Your task to perform on an android device: allow cookies in the chrome app Image 0: 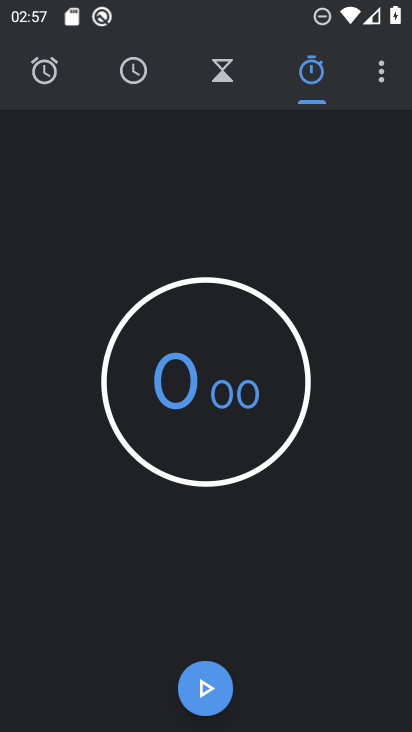
Step 0: press home button
Your task to perform on an android device: allow cookies in the chrome app Image 1: 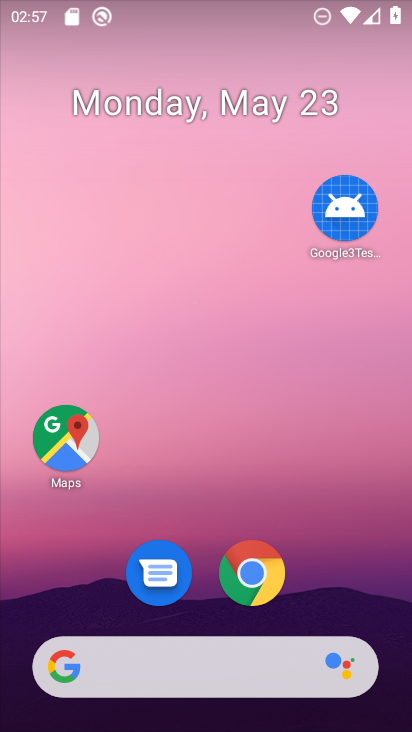
Step 1: click (257, 578)
Your task to perform on an android device: allow cookies in the chrome app Image 2: 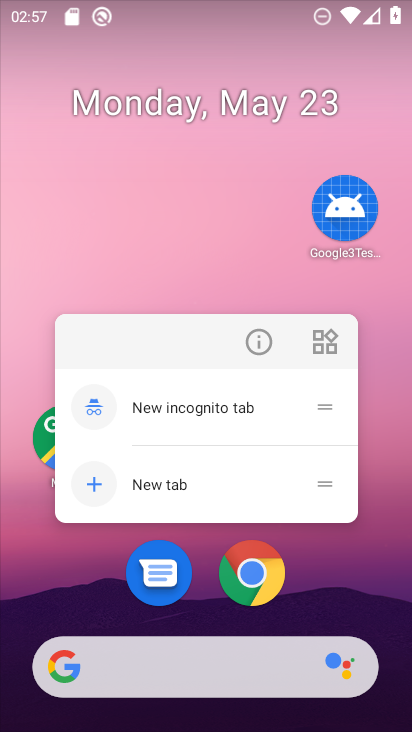
Step 2: click (255, 577)
Your task to perform on an android device: allow cookies in the chrome app Image 3: 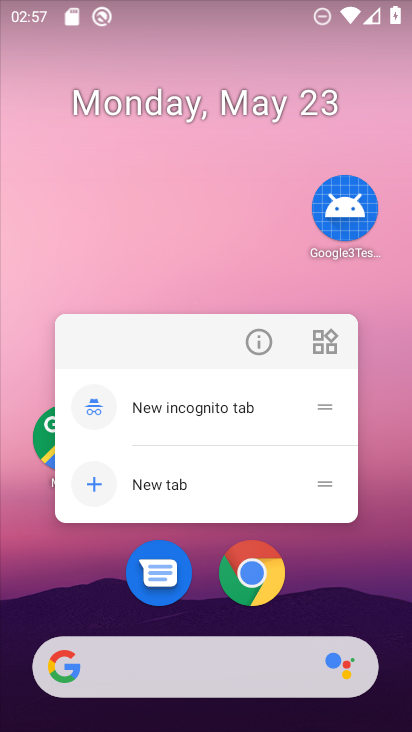
Step 3: click (250, 572)
Your task to perform on an android device: allow cookies in the chrome app Image 4: 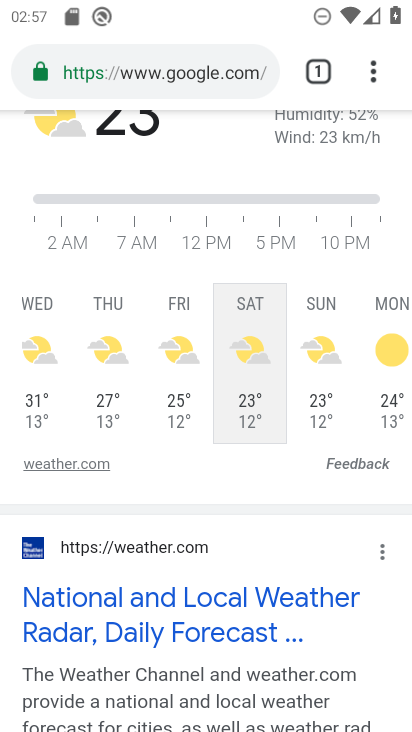
Step 4: drag from (373, 78) to (166, 561)
Your task to perform on an android device: allow cookies in the chrome app Image 5: 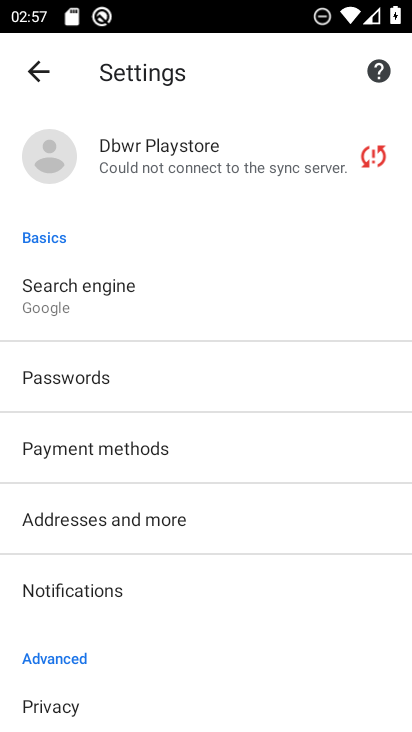
Step 5: click (255, 625)
Your task to perform on an android device: allow cookies in the chrome app Image 6: 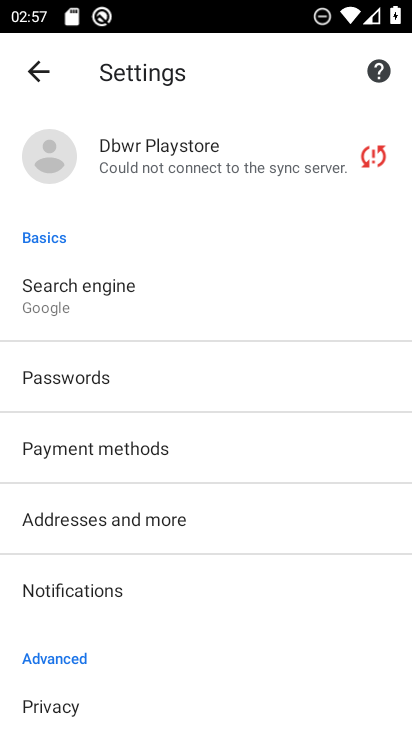
Step 6: drag from (255, 621) to (284, 143)
Your task to perform on an android device: allow cookies in the chrome app Image 7: 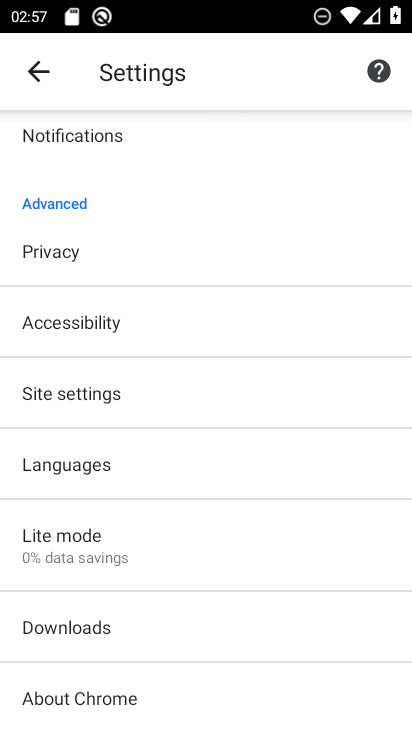
Step 7: click (188, 401)
Your task to perform on an android device: allow cookies in the chrome app Image 8: 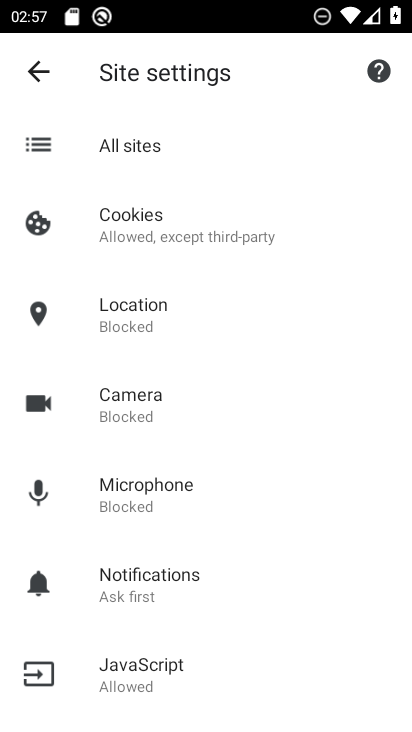
Step 8: click (219, 242)
Your task to perform on an android device: allow cookies in the chrome app Image 9: 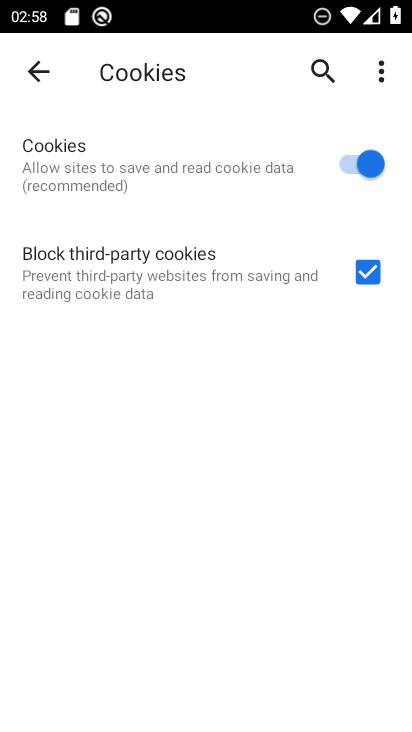
Step 9: task complete